Your task to perform on an android device: turn pop-ups off in chrome Image 0: 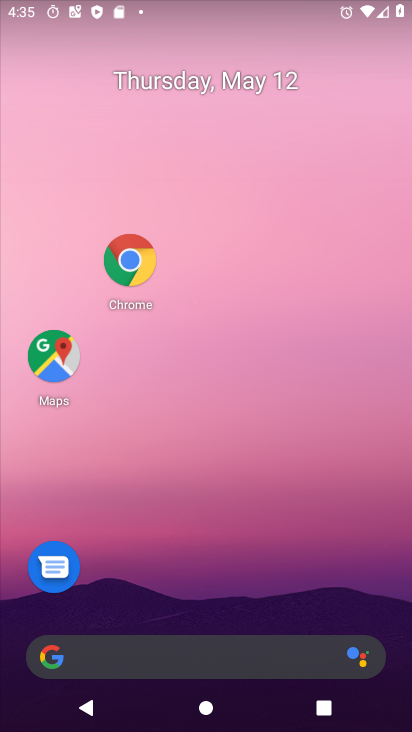
Step 0: click (141, 258)
Your task to perform on an android device: turn pop-ups off in chrome Image 1: 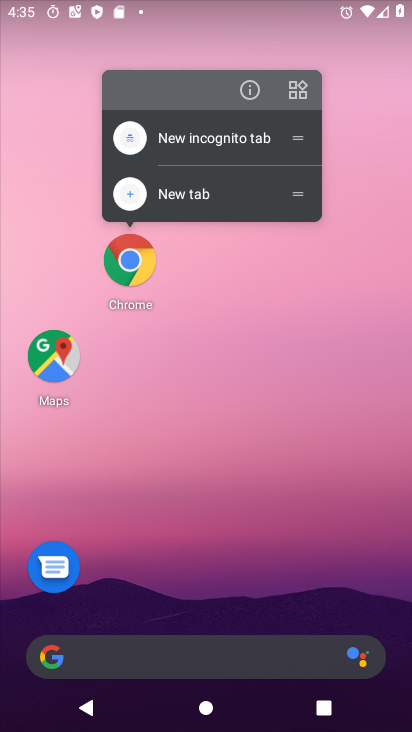
Step 1: click (138, 265)
Your task to perform on an android device: turn pop-ups off in chrome Image 2: 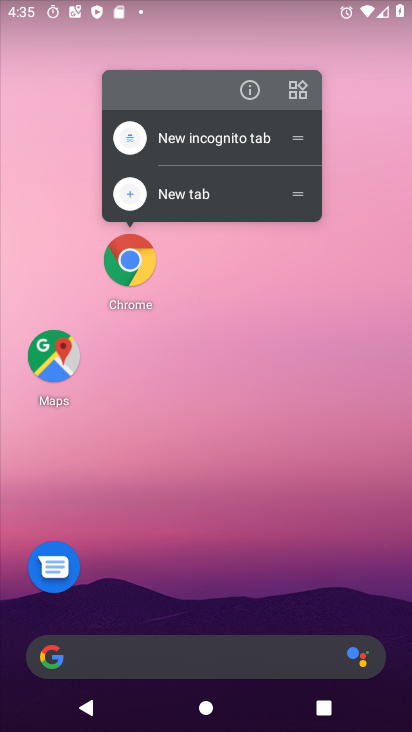
Step 2: click (138, 265)
Your task to perform on an android device: turn pop-ups off in chrome Image 3: 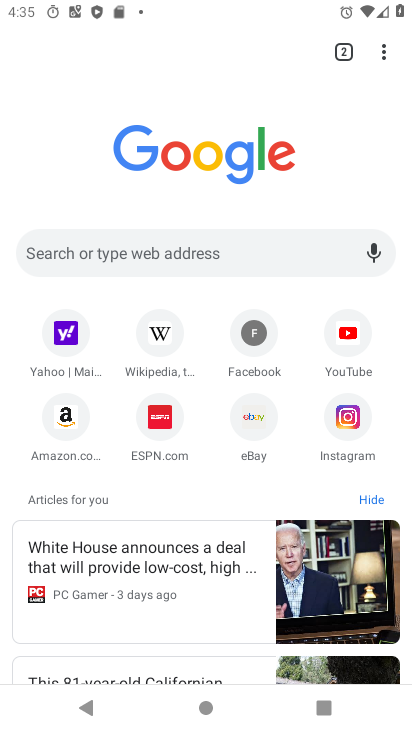
Step 3: click (387, 49)
Your task to perform on an android device: turn pop-ups off in chrome Image 4: 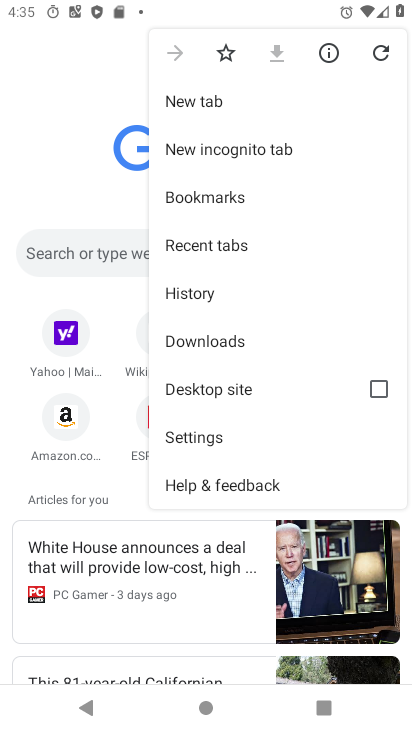
Step 4: click (214, 436)
Your task to perform on an android device: turn pop-ups off in chrome Image 5: 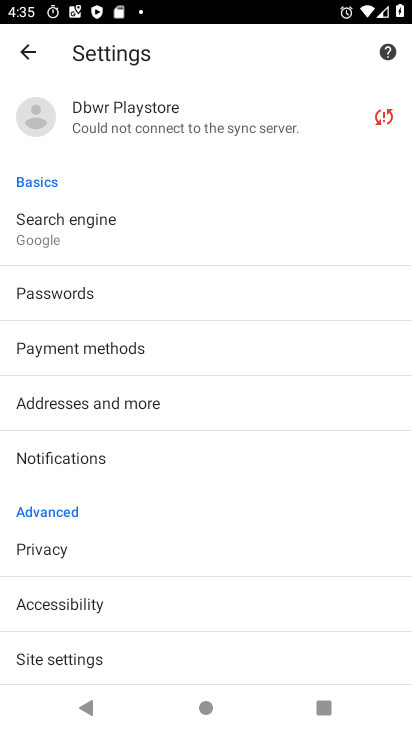
Step 5: drag from (64, 650) to (43, 361)
Your task to perform on an android device: turn pop-ups off in chrome Image 6: 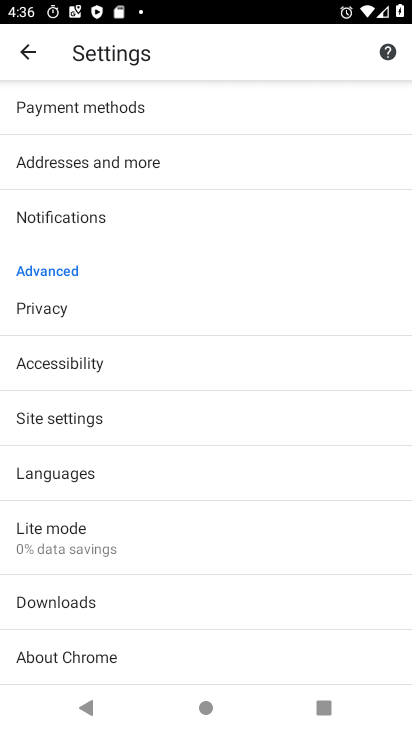
Step 6: click (46, 418)
Your task to perform on an android device: turn pop-ups off in chrome Image 7: 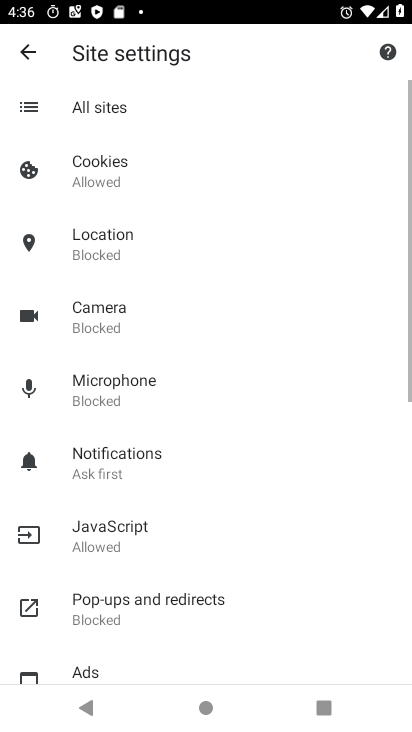
Step 7: drag from (157, 628) to (157, 349)
Your task to perform on an android device: turn pop-ups off in chrome Image 8: 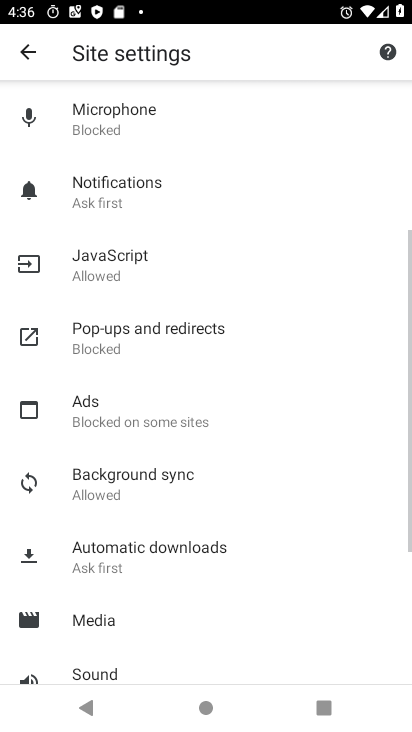
Step 8: click (160, 335)
Your task to perform on an android device: turn pop-ups off in chrome Image 9: 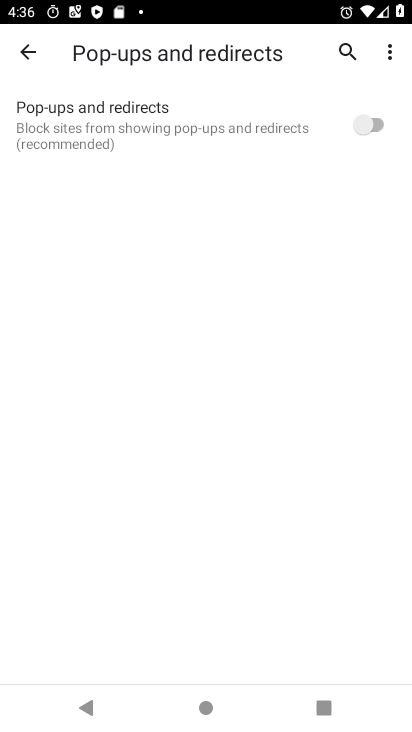
Step 9: task complete